Your task to perform on an android device: Empty the shopping cart on amazon.com. Add "usb-c to usb-b" to the cart on amazon.com Image 0: 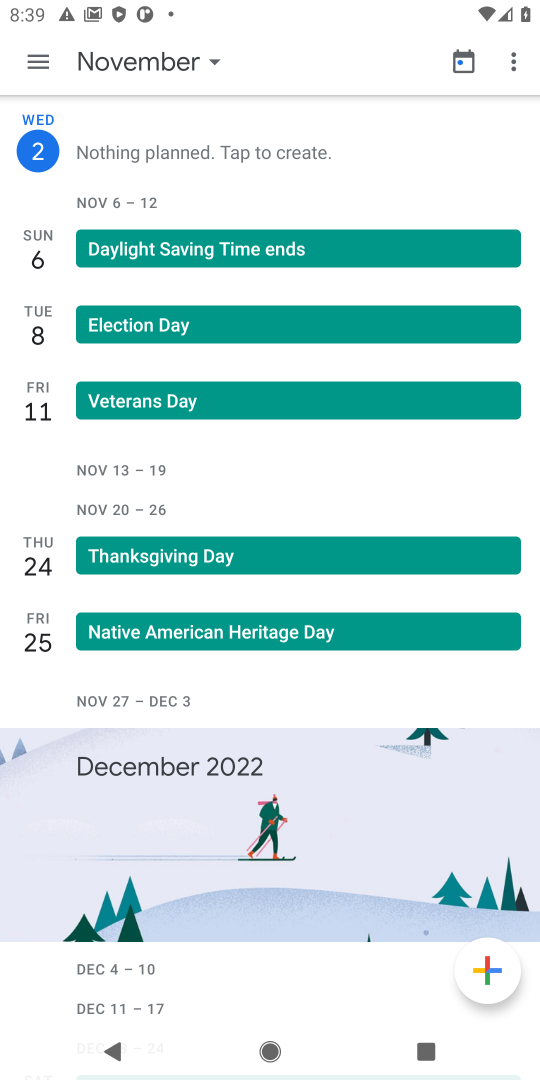
Step 0: press home button
Your task to perform on an android device: Empty the shopping cart on amazon.com. Add "usb-c to usb-b" to the cart on amazon.com Image 1: 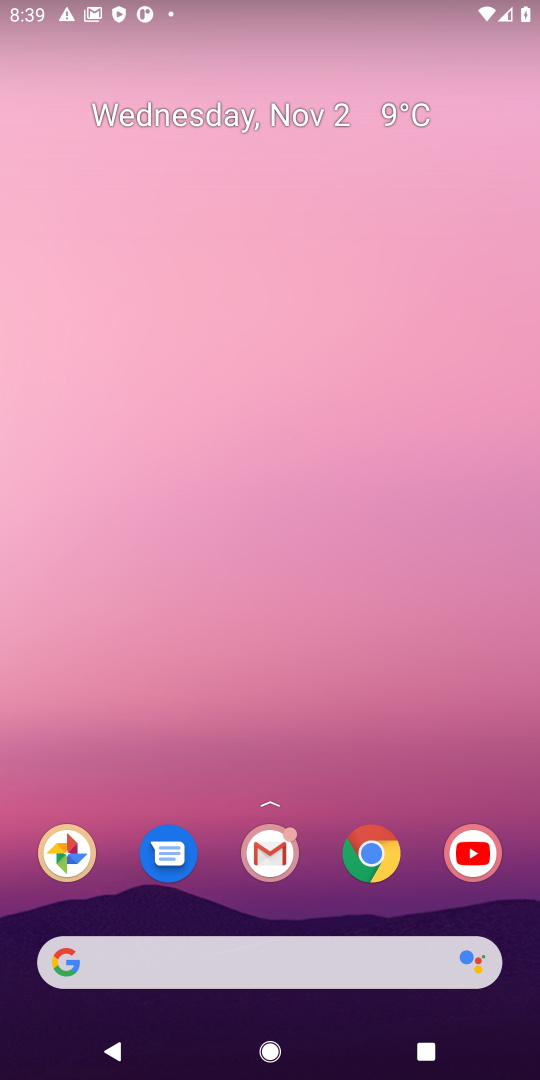
Step 1: click (383, 853)
Your task to perform on an android device: Empty the shopping cart on amazon.com. Add "usb-c to usb-b" to the cart on amazon.com Image 2: 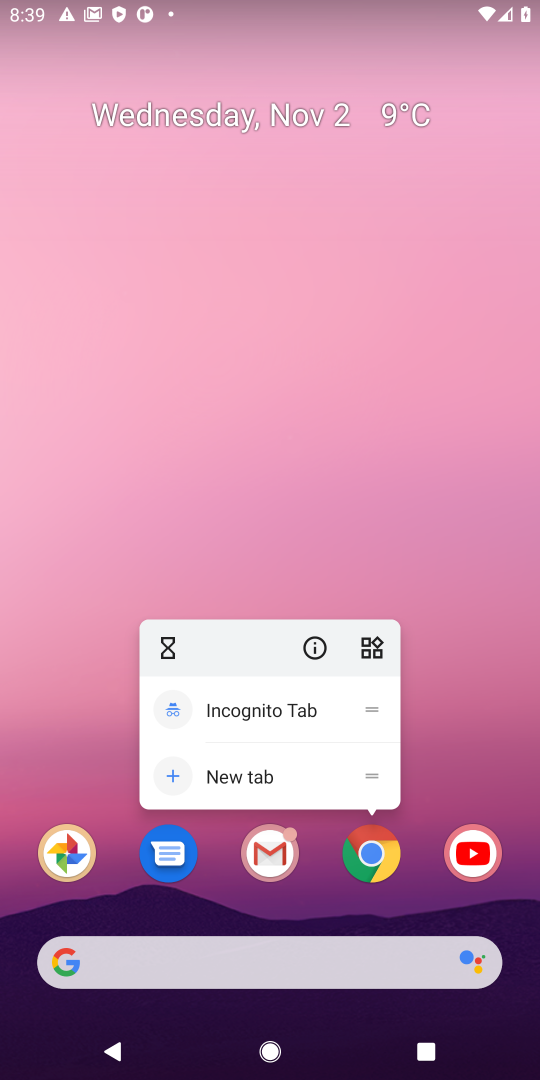
Step 2: click (383, 855)
Your task to perform on an android device: Empty the shopping cart on amazon.com. Add "usb-c to usb-b" to the cart on amazon.com Image 3: 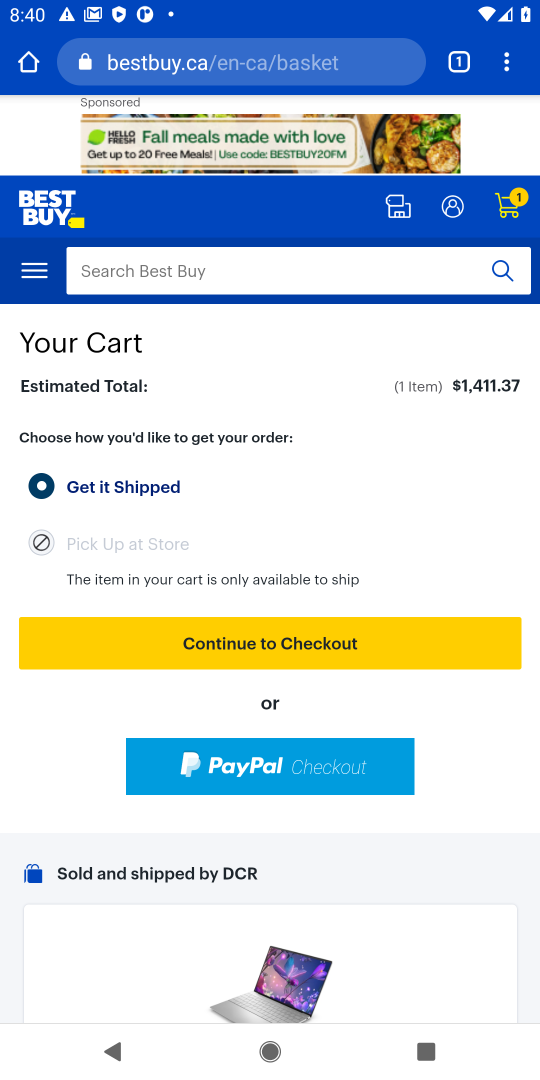
Step 3: click (351, 56)
Your task to perform on an android device: Empty the shopping cart on amazon.com. Add "usb-c to usb-b" to the cart on amazon.com Image 4: 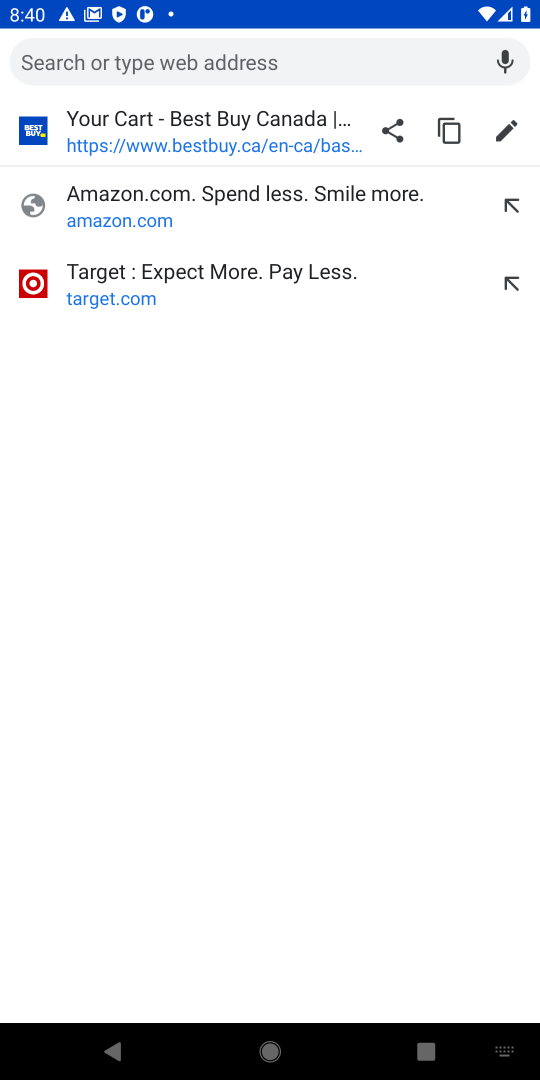
Step 4: type "amazon.com"
Your task to perform on an android device: Empty the shopping cart on amazon.com. Add "usb-c to usb-b" to the cart on amazon.com Image 5: 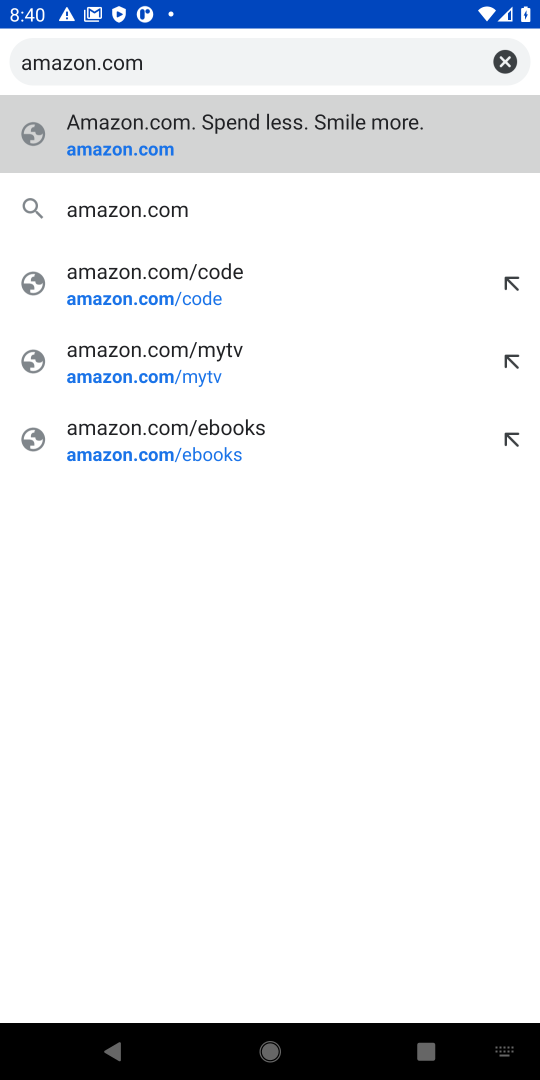
Step 5: press enter
Your task to perform on an android device: Empty the shopping cart on amazon.com. Add "usb-c to usb-b" to the cart on amazon.com Image 6: 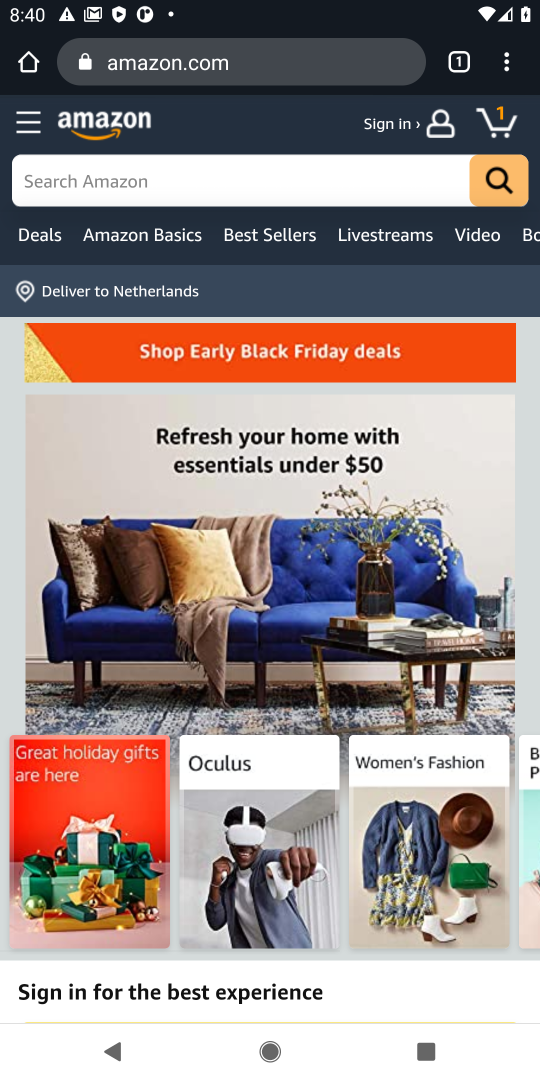
Step 6: click (182, 185)
Your task to perform on an android device: Empty the shopping cart on amazon.com. Add "usb-c to usb-b" to the cart on amazon.com Image 7: 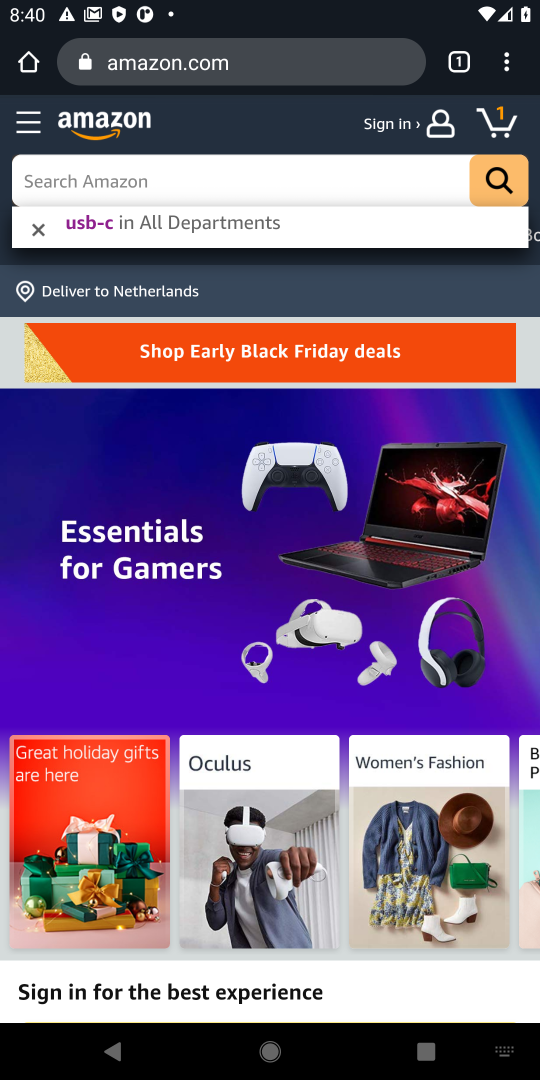
Step 7: type "usb-c to usb-b"
Your task to perform on an android device: Empty the shopping cart on amazon.com. Add "usb-c to usb-b" to the cart on amazon.com Image 8: 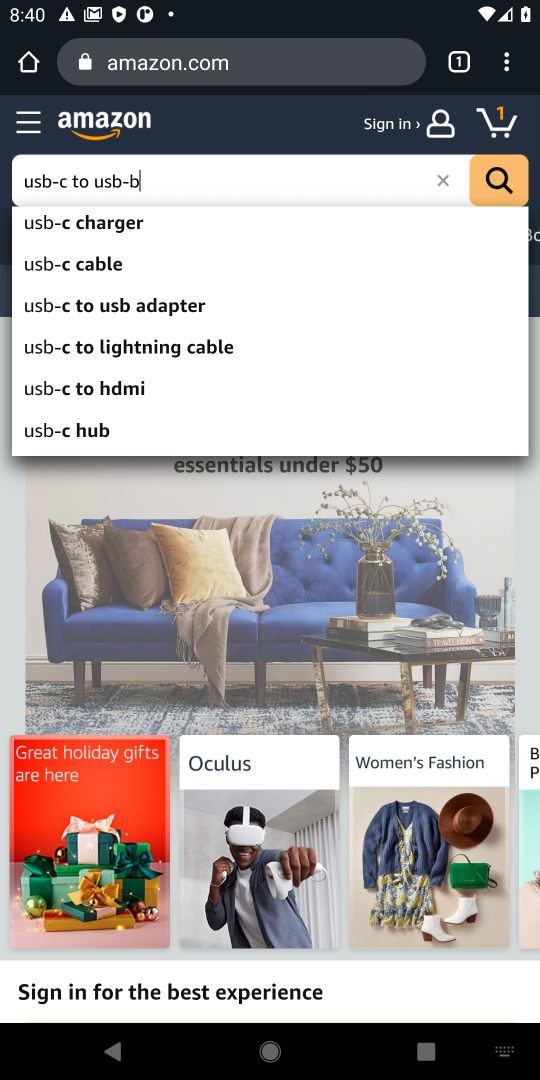
Step 8: press enter
Your task to perform on an android device: Empty the shopping cart on amazon.com. Add "usb-c to usb-b" to the cart on amazon.com Image 9: 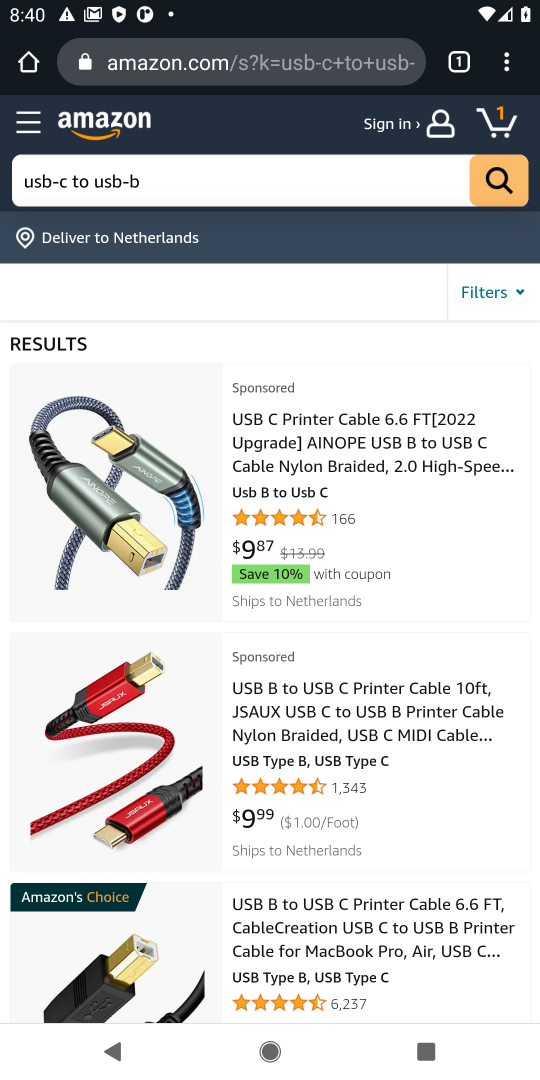
Step 9: click (349, 722)
Your task to perform on an android device: Empty the shopping cart on amazon.com. Add "usb-c to usb-b" to the cart on amazon.com Image 10: 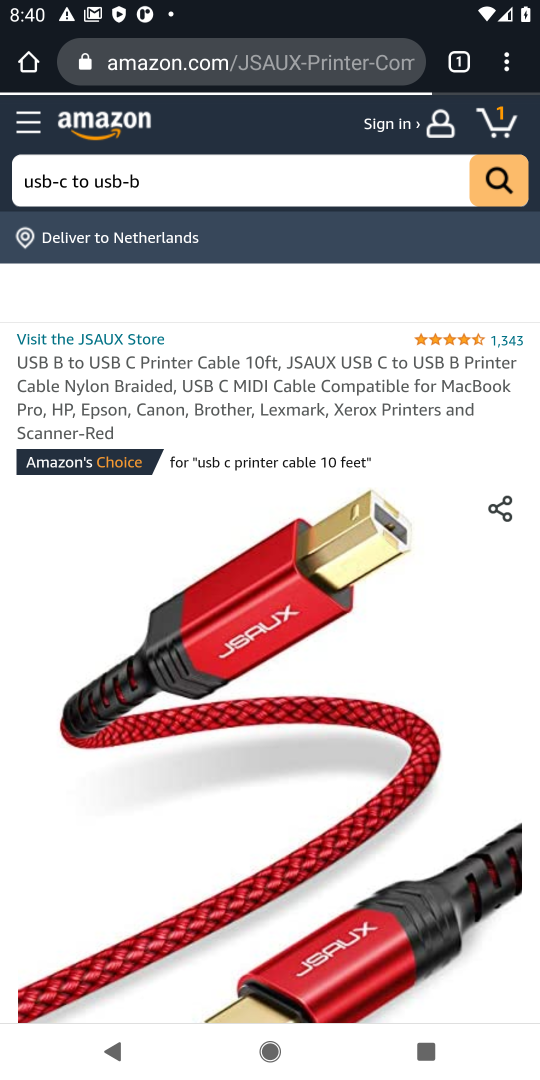
Step 10: drag from (255, 795) to (463, 159)
Your task to perform on an android device: Empty the shopping cart on amazon.com. Add "usb-c to usb-b" to the cart on amazon.com Image 11: 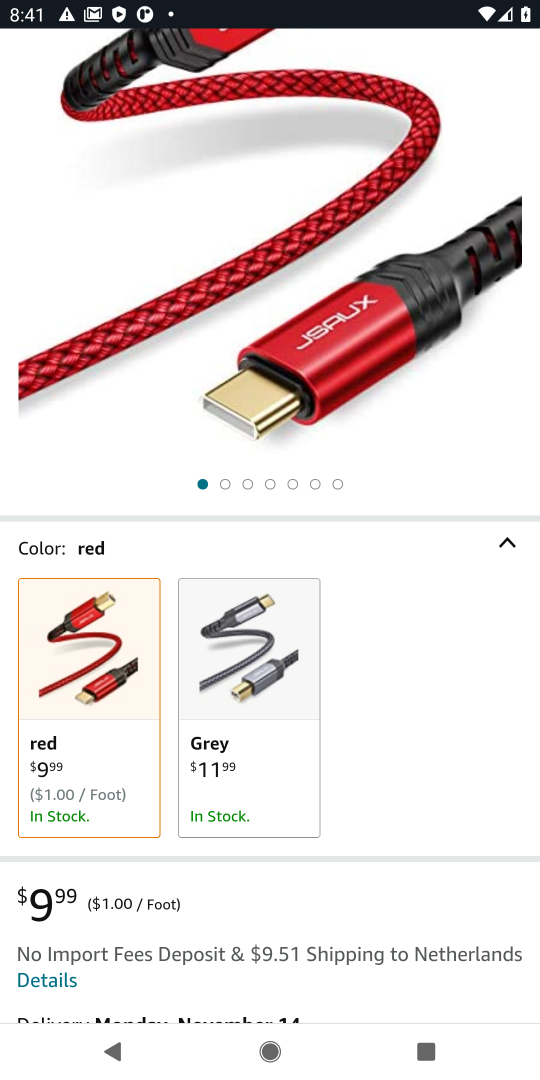
Step 11: drag from (289, 934) to (430, 176)
Your task to perform on an android device: Empty the shopping cart on amazon.com. Add "usb-c to usb-b" to the cart on amazon.com Image 12: 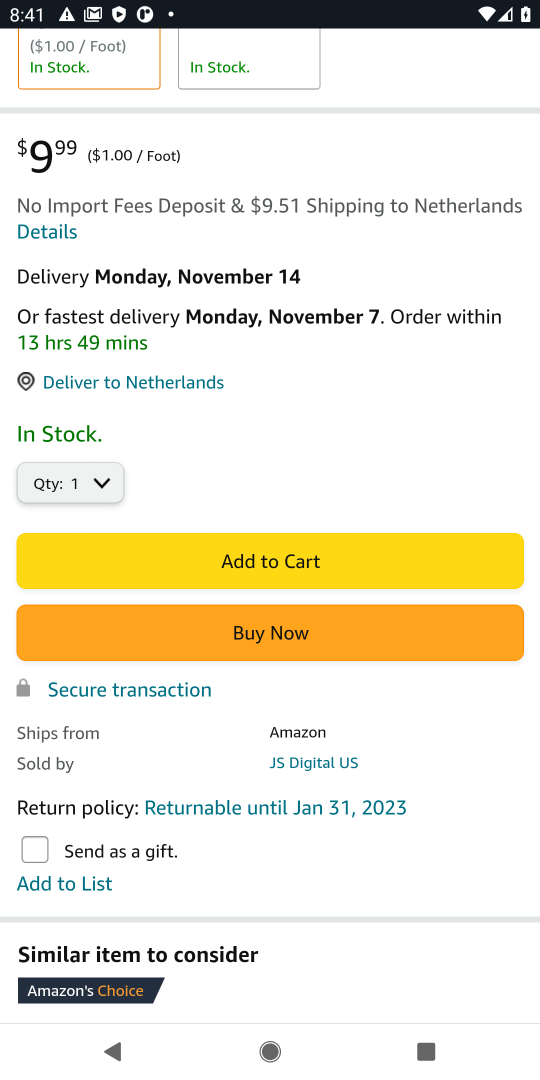
Step 12: click (278, 563)
Your task to perform on an android device: Empty the shopping cart on amazon.com. Add "usb-c to usb-b" to the cart on amazon.com Image 13: 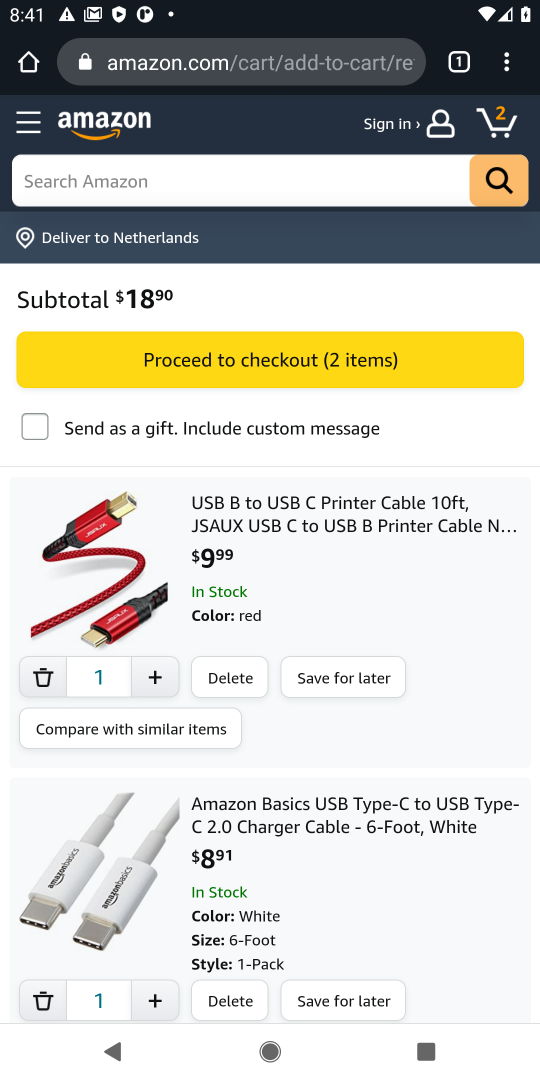
Step 13: click (495, 124)
Your task to perform on an android device: Empty the shopping cart on amazon.com. Add "usb-c to usb-b" to the cart on amazon.com Image 14: 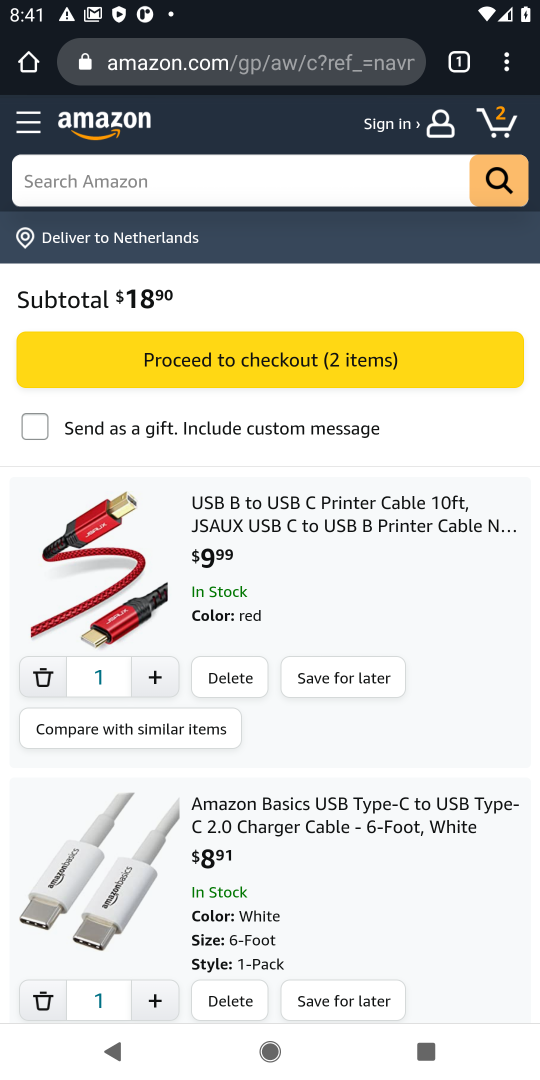
Step 14: drag from (254, 911) to (480, 330)
Your task to perform on an android device: Empty the shopping cart on amazon.com. Add "usb-c to usb-b" to the cart on amazon.com Image 15: 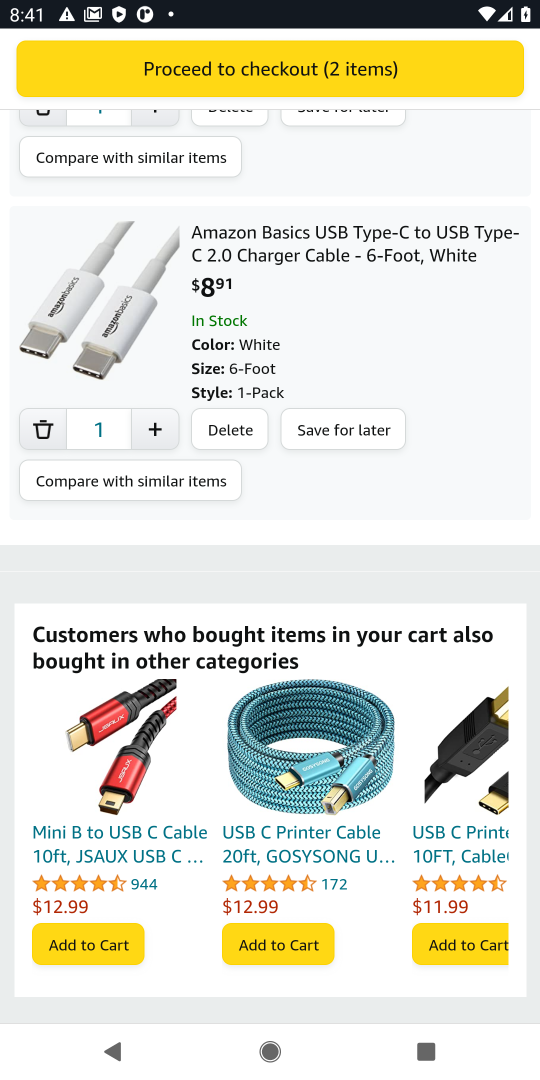
Step 15: click (229, 424)
Your task to perform on an android device: Empty the shopping cart on amazon.com. Add "usb-c to usb-b" to the cart on amazon.com Image 16: 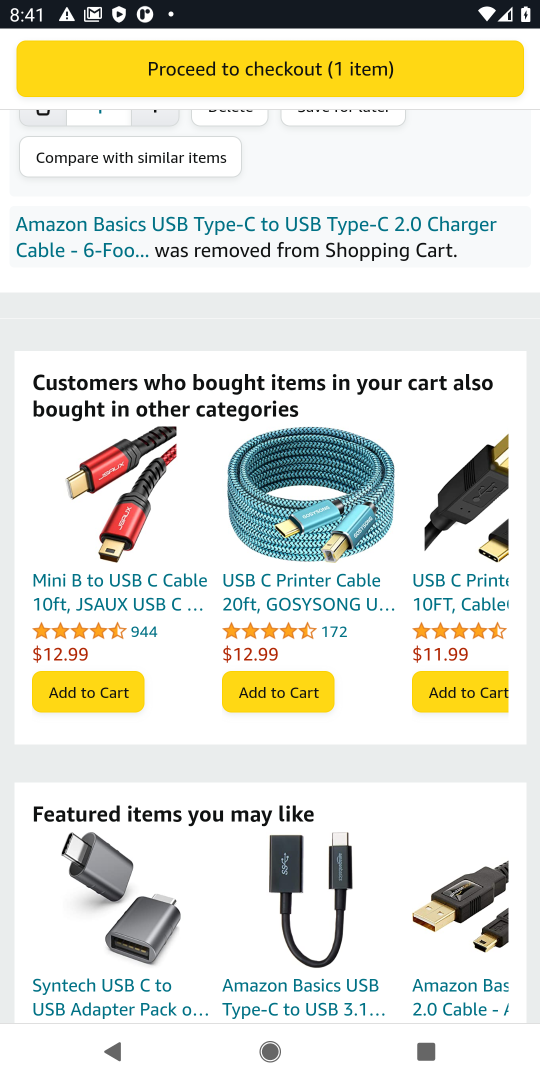
Step 16: task complete